Your task to perform on an android device: read, delete, or share a saved page in the chrome app Image 0: 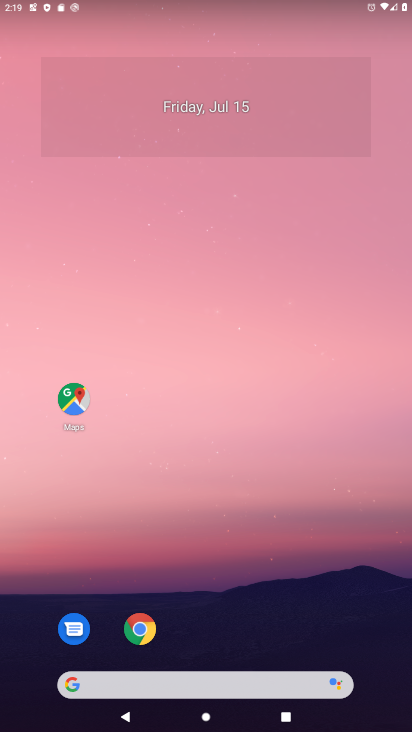
Step 0: drag from (382, 589) to (321, 125)
Your task to perform on an android device: read, delete, or share a saved page in the chrome app Image 1: 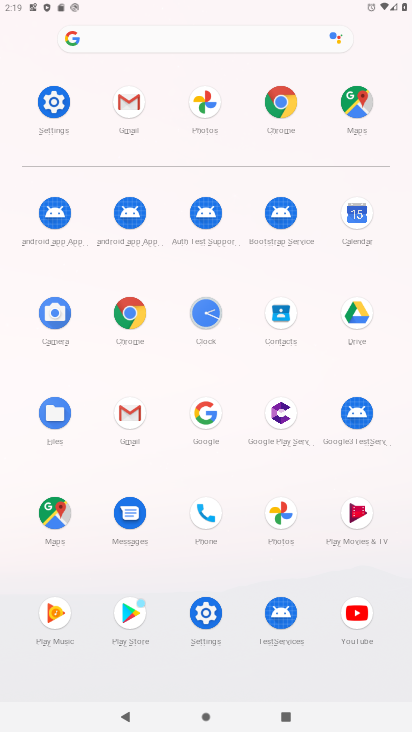
Step 1: click (129, 307)
Your task to perform on an android device: read, delete, or share a saved page in the chrome app Image 2: 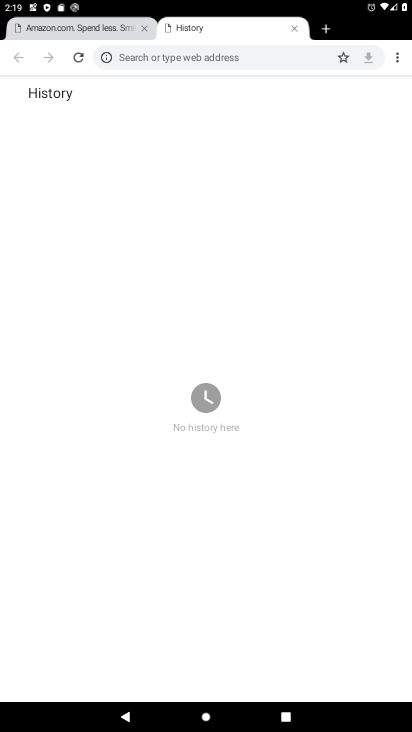
Step 2: task complete